Your task to perform on an android device: Open Google Maps Image 0: 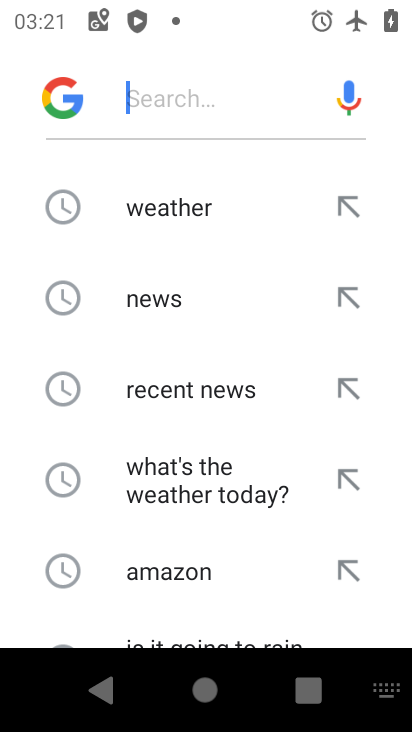
Step 0: press back button
Your task to perform on an android device: Open Google Maps Image 1: 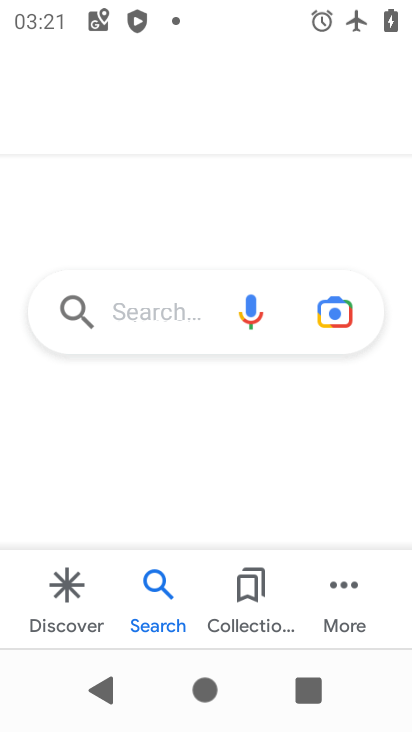
Step 1: press home button
Your task to perform on an android device: Open Google Maps Image 2: 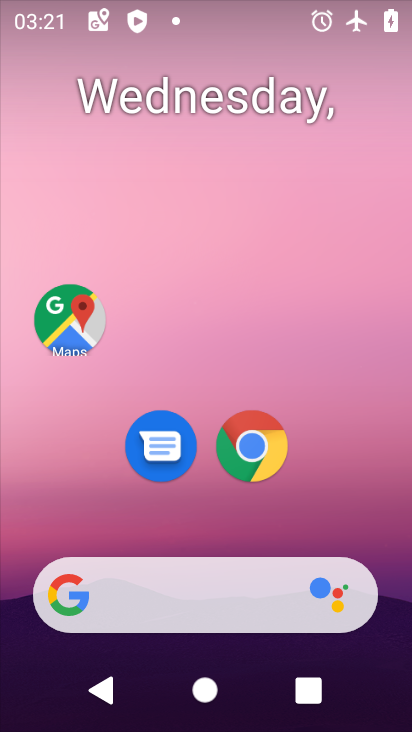
Step 2: click (41, 332)
Your task to perform on an android device: Open Google Maps Image 3: 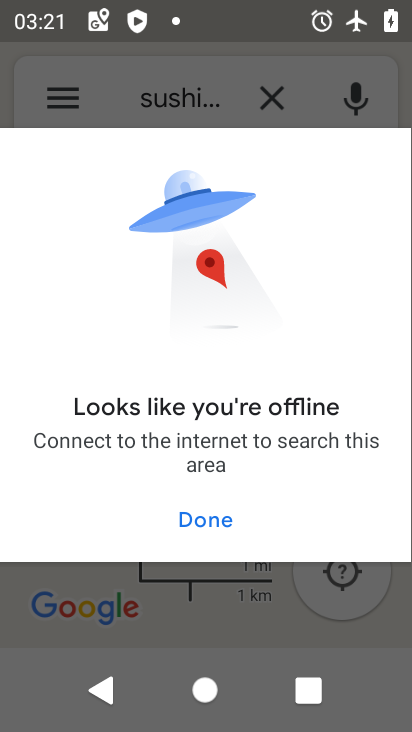
Step 3: task complete